Your task to perform on an android device: toggle notifications settings in the gmail app Image 0: 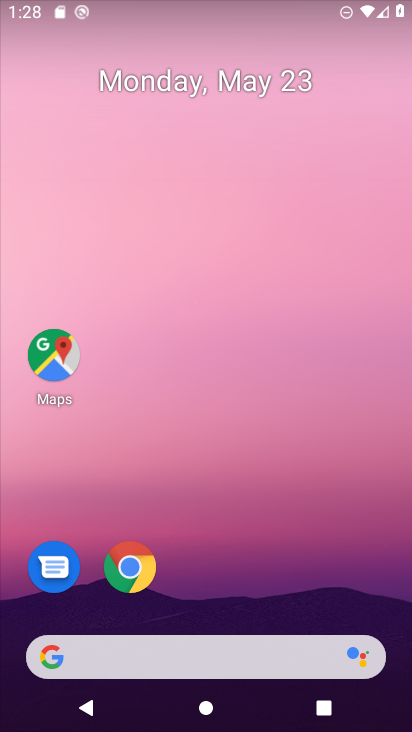
Step 0: drag from (227, 569) to (278, 78)
Your task to perform on an android device: toggle notifications settings in the gmail app Image 1: 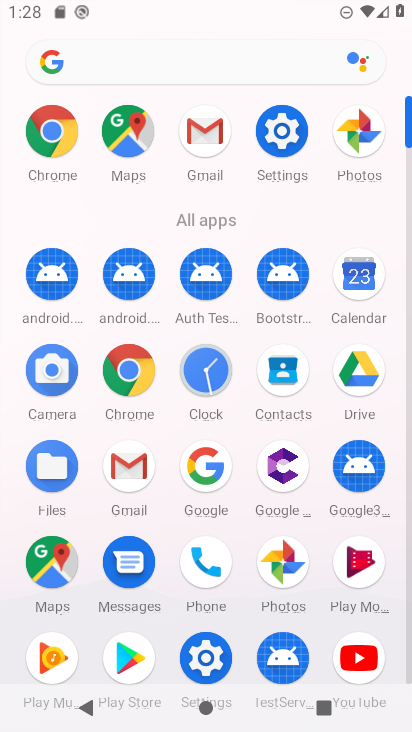
Step 1: click (131, 439)
Your task to perform on an android device: toggle notifications settings in the gmail app Image 2: 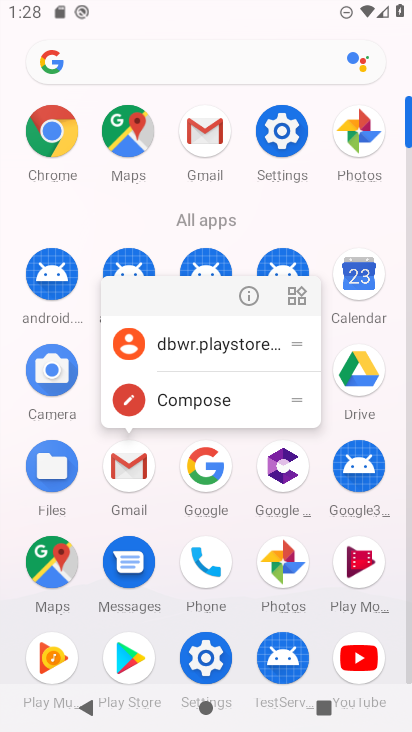
Step 2: click (248, 298)
Your task to perform on an android device: toggle notifications settings in the gmail app Image 3: 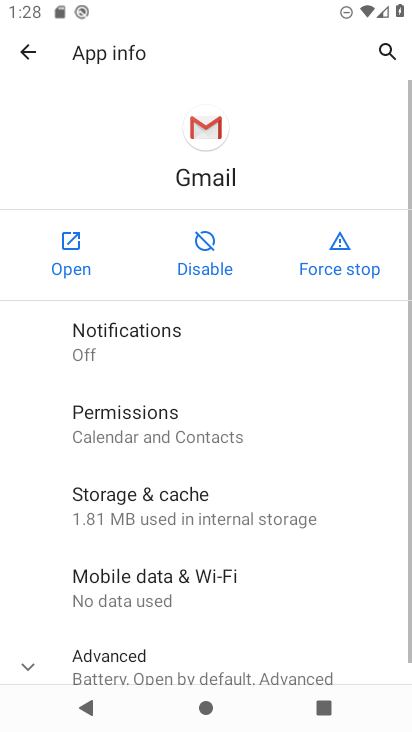
Step 3: click (186, 339)
Your task to perform on an android device: toggle notifications settings in the gmail app Image 4: 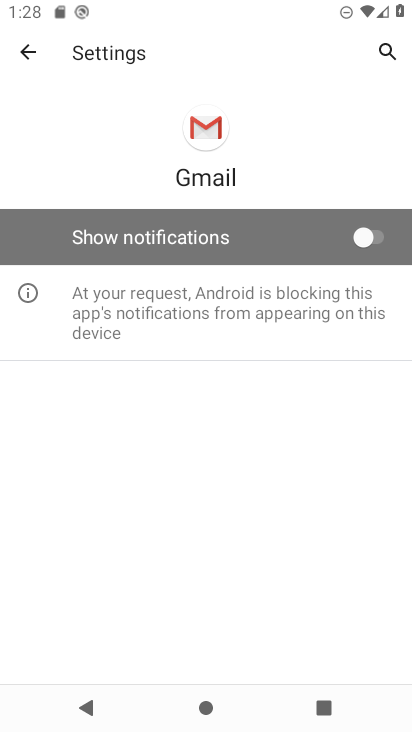
Step 4: click (386, 229)
Your task to perform on an android device: toggle notifications settings in the gmail app Image 5: 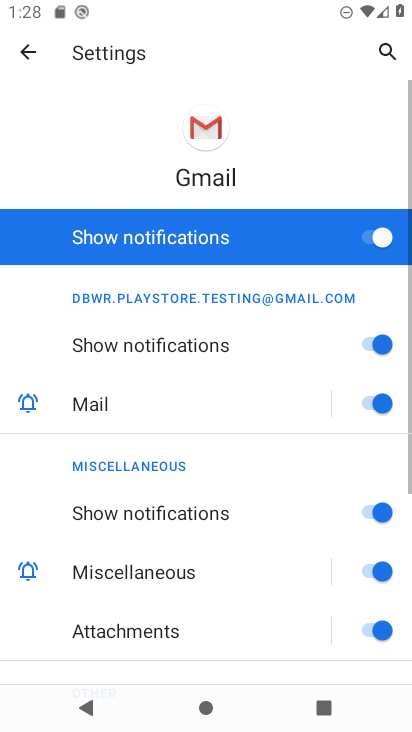
Step 5: task complete